Your task to perform on an android device: turn off wifi Image 0: 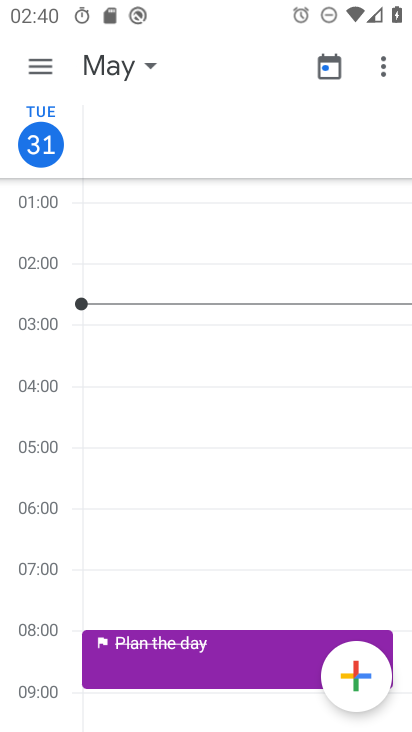
Step 0: press home button
Your task to perform on an android device: turn off wifi Image 1: 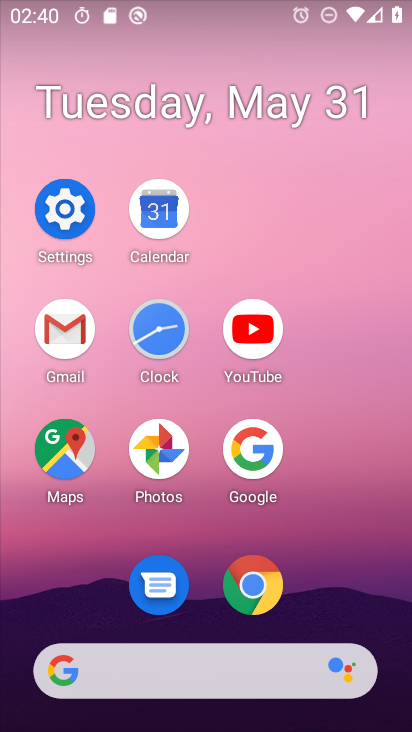
Step 1: click (56, 208)
Your task to perform on an android device: turn off wifi Image 2: 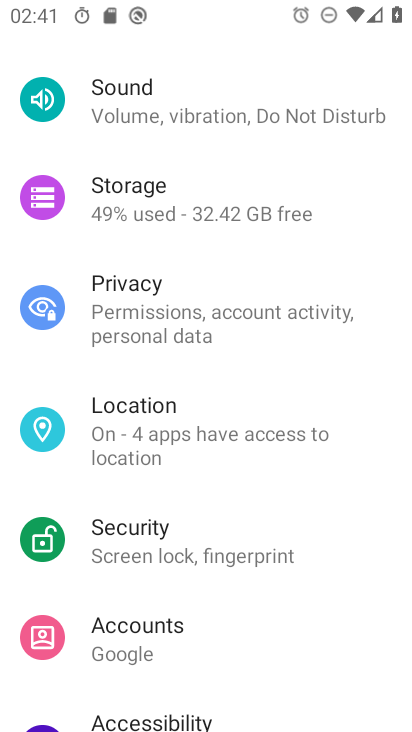
Step 2: drag from (284, 171) to (284, 590)
Your task to perform on an android device: turn off wifi Image 3: 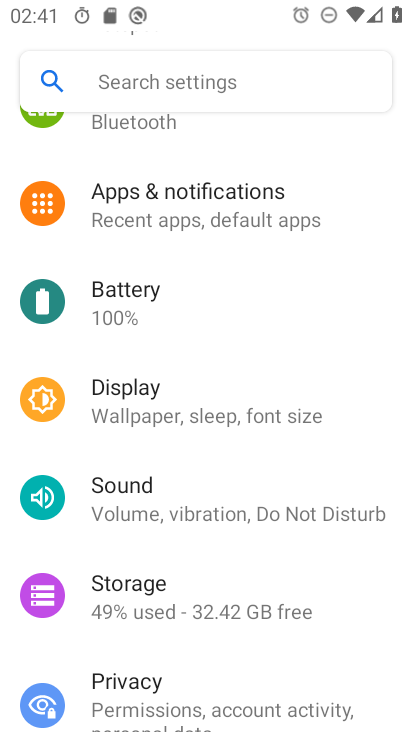
Step 3: drag from (239, 136) to (240, 623)
Your task to perform on an android device: turn off wifi Image 4: 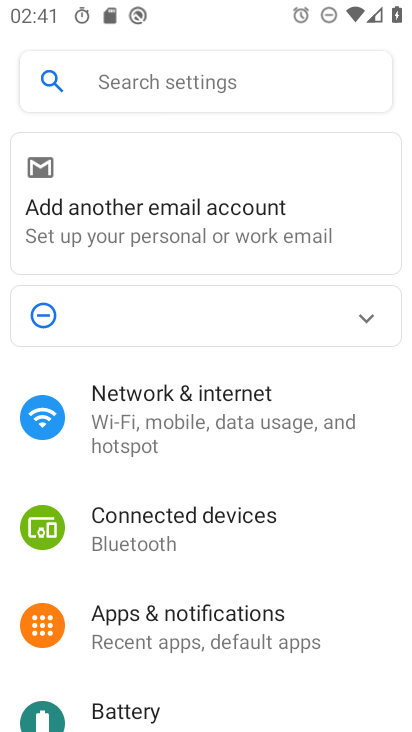
Step 4: click (228, 419)
Your task to perform on an android device: turn off wifi Image 5: 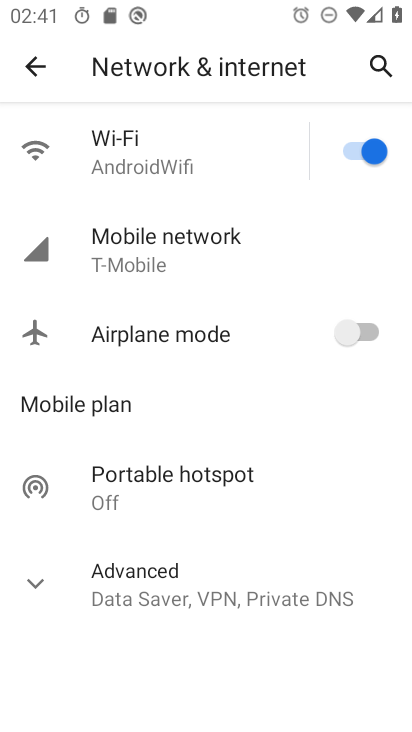
Step 5: click (347, 147)
Your task to perform on an android device: turn off wifi Image 6: 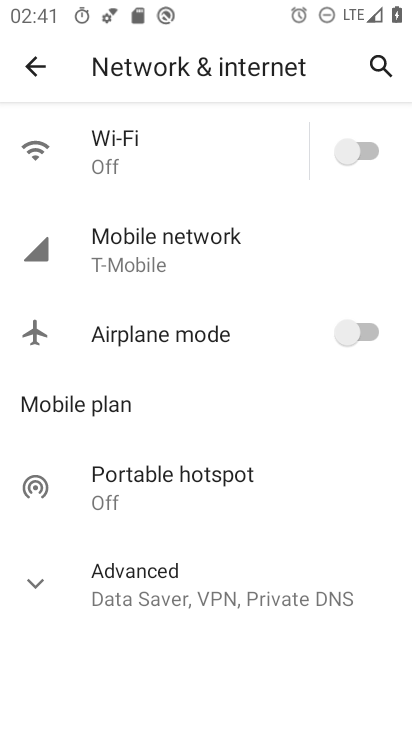
Step 6: task complete